Your task to perform on an android device: turn on airplane mode Image 0: 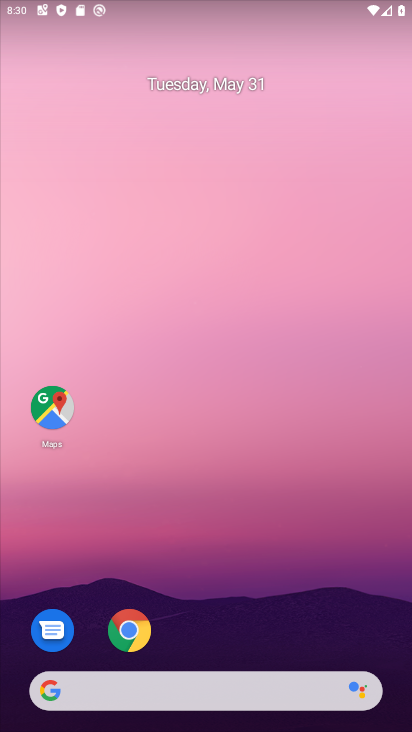
Step 0: click (202, 615)
Your task to perform on an android device: turn on airplane mode Image 1: 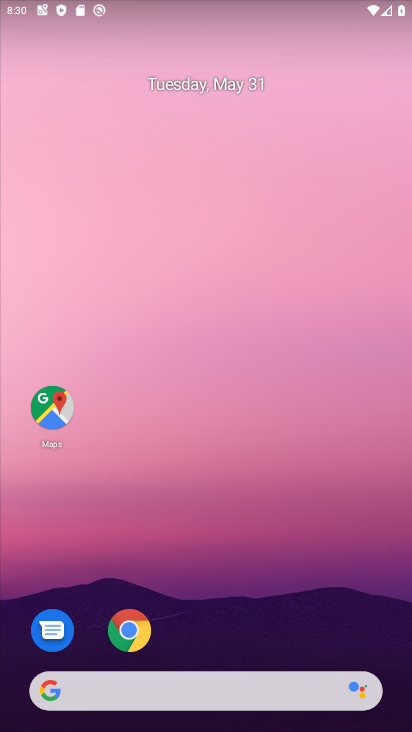
Step 1: drag from (202, 568) to (212, 12)
Your task to perform on an android device: turn on airplane mode Image 2: 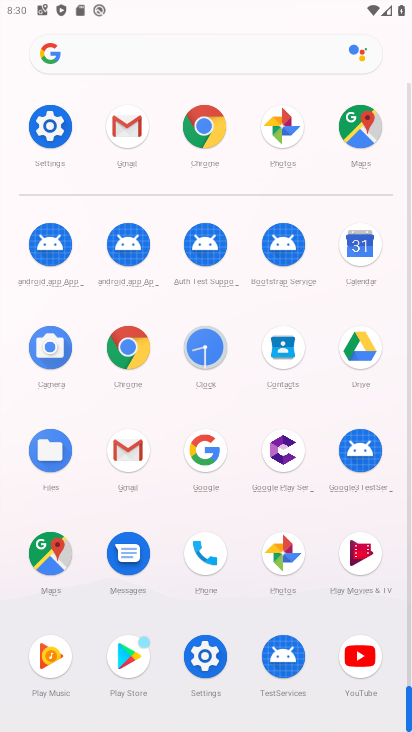
Step 2: click (49, 115)
Your task to perform on an android device: turn on airplane mode Image 3: 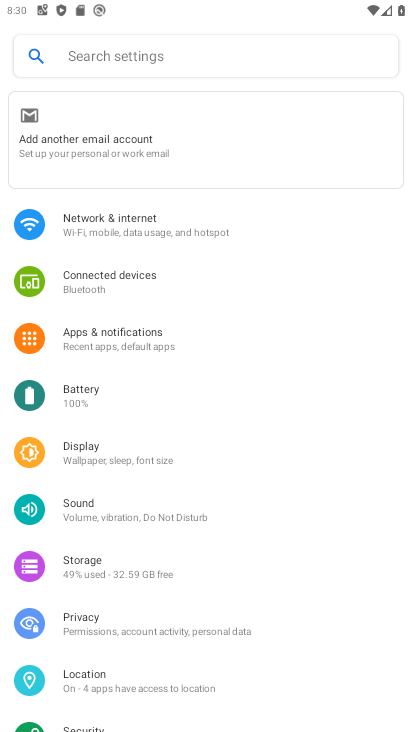
Step 3: click (133, 228)
Your task to perform on an android device: turn on airplane mode Image 4: 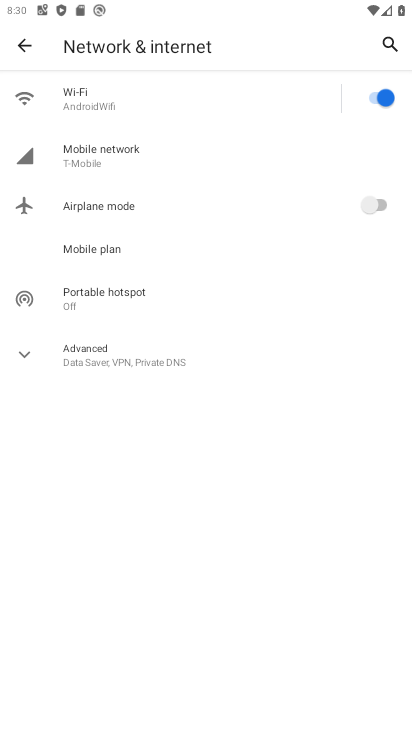
Step 4: click (374, 201)
Your task to perform on an android device: turn on airplane mode Image 5: 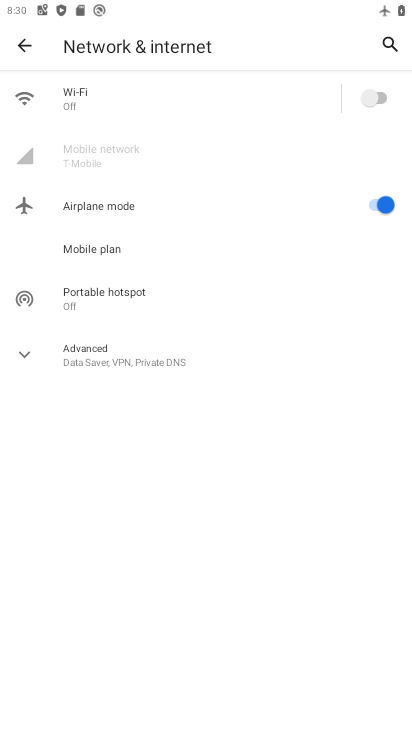
Step 5: task complete